Your task to perform on an android device: delete the emails in spam in the gmail app Image 0: 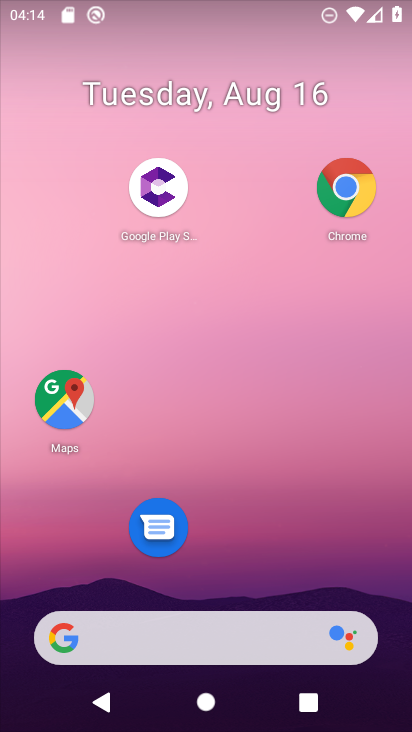
Step 0: drag from (240, 578) to (247, 5)
Your task to perform on an android device: delete the emails in spam in the gmail app Image 1: 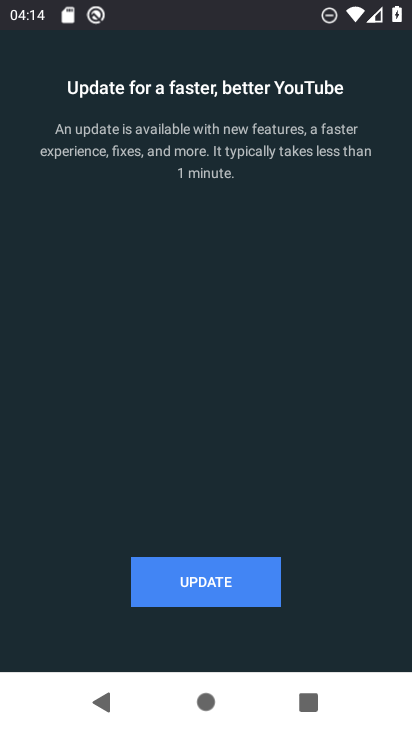
Step 1: press home button
Your task to perform on an android device: delete the emails in spam in the gmail app Image 2: 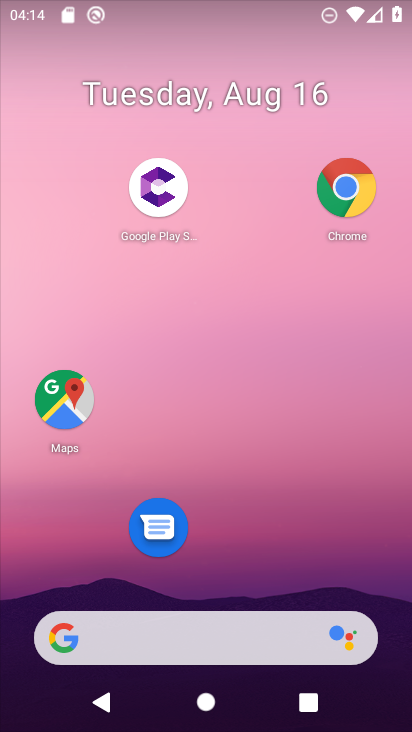
Step 2: drag from (214, 579) to (233, 20)
Your task to perform on an android device: delete the emails in spam in the gmail app Image 3: 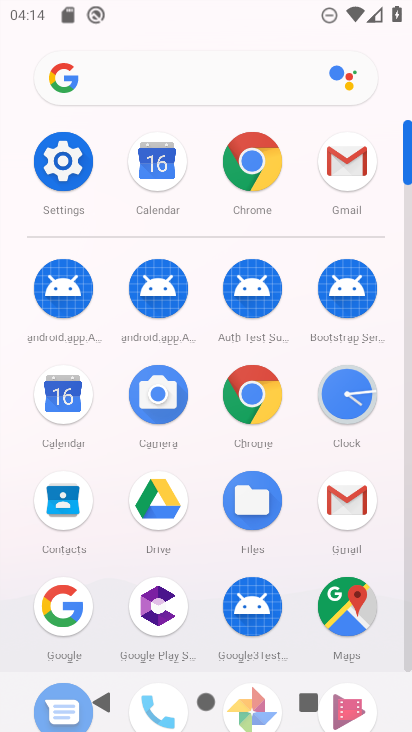
Step 3: click (347, 152)
Your task to perform on an android device: delete the emails in spam in the gmail app Image 4: 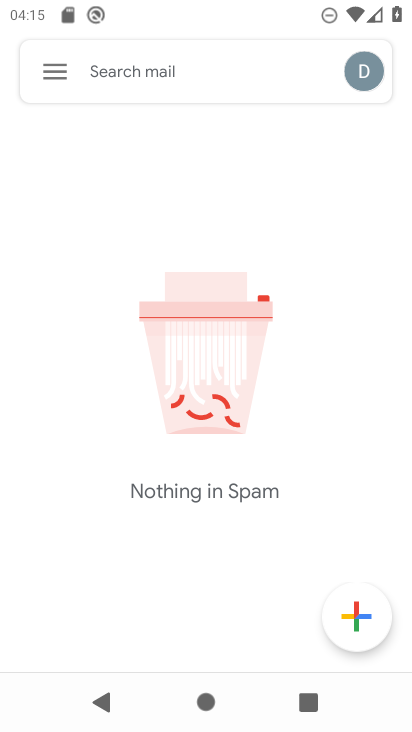
Step 4: task complete